Your task to perform on an android device: Find coffee shops on Maps Image 0: 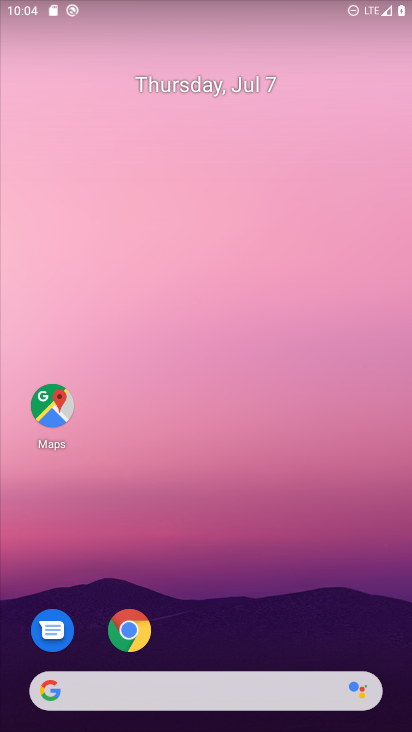
Step 0: click (31, 386)
Your task to perform on an android device: Find coffee shops on Maps Image 1: 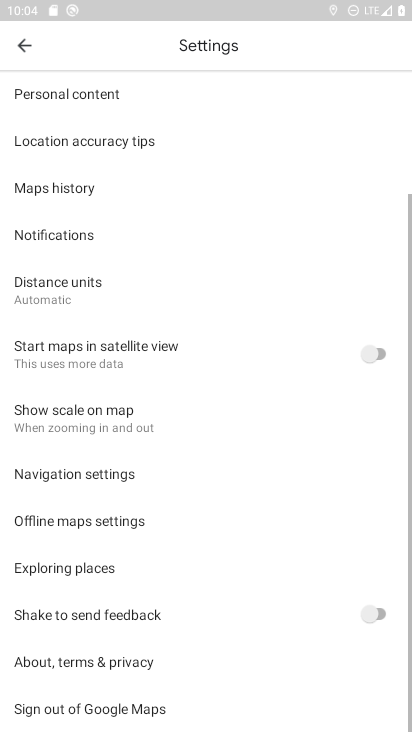
Step 1: click (18, 59)
Your task to perform on an android device: Find coffee shops on Maps Image 2: 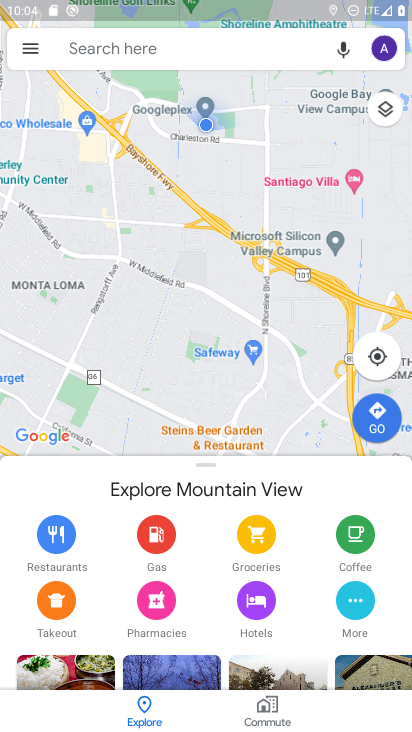
Step 2: click (106, 57)
Your task to perform on an android device: Find coffee shops on Maps Image 3: 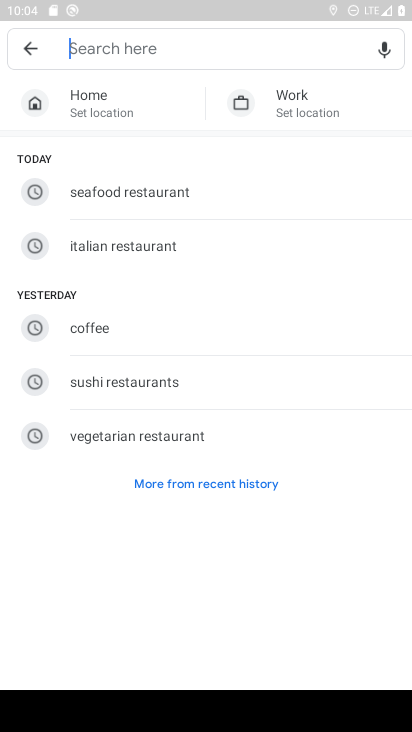
Step 3: type "coffee shops"
Your task to perform on an android device: Find coffee shops on Maps Image 4: 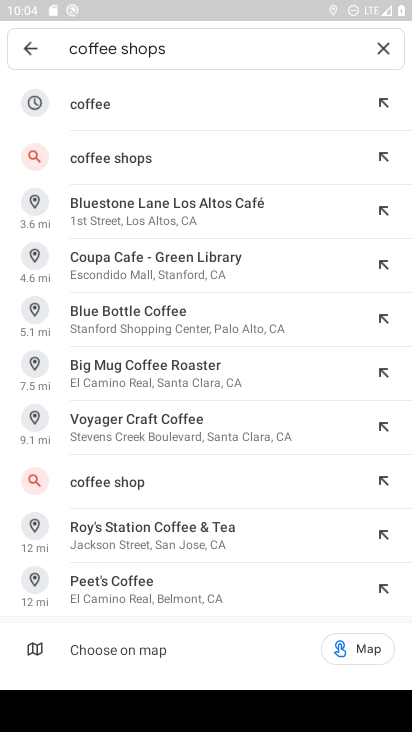
Step 4: click (160, 163)
Your task to perform on an android device: Find coffee shops on Maps Image 5: 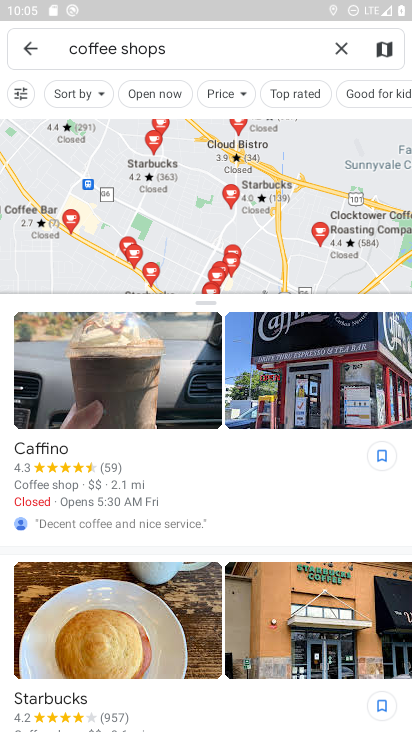
Step 5: task complete